Your task to perform on an android device: turn off sleep mode Image 0: 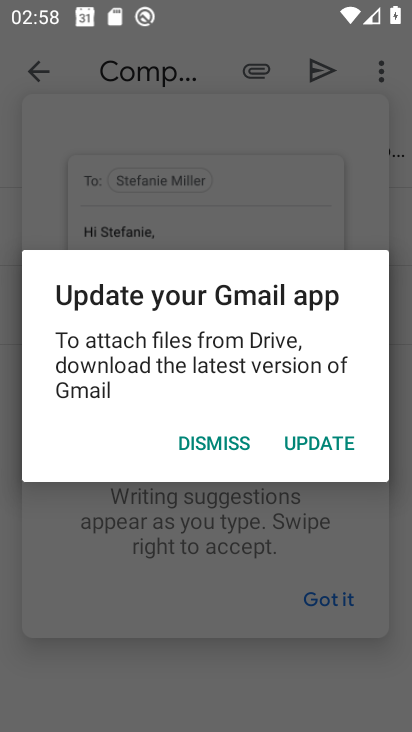
Step 0: press home button
Your task to perform on an android device: turn off sleep mode Image 1: 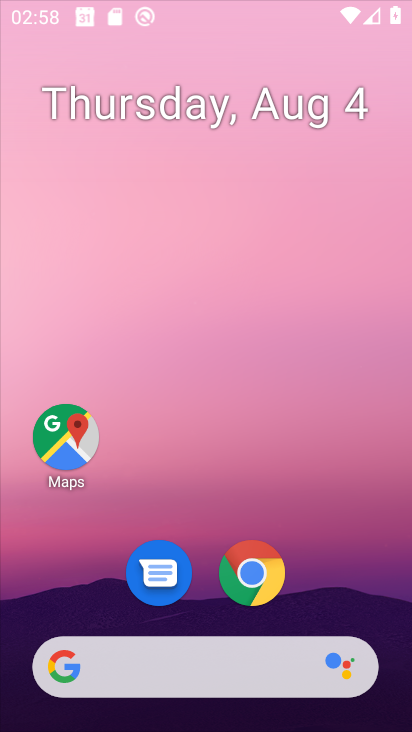
Step 1: drag from (220, 568) to (285, 165)
Your task to perform on an android device: turn off sleep mode Image 2: 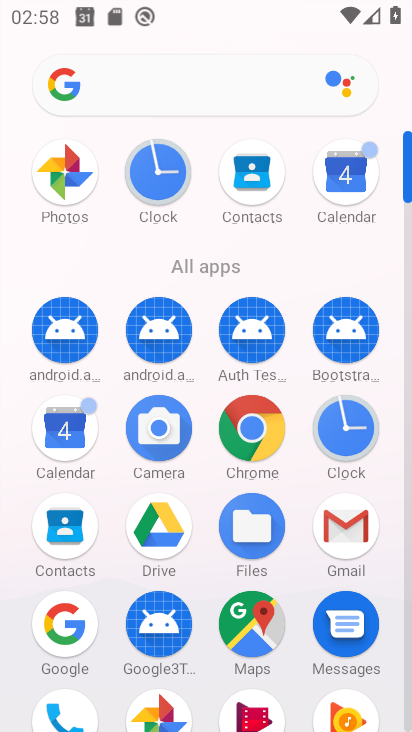
Step 2: drag from (268, 685) to (303, 143)
Your task to perform on an android device: turn off sleep mode Image 3: 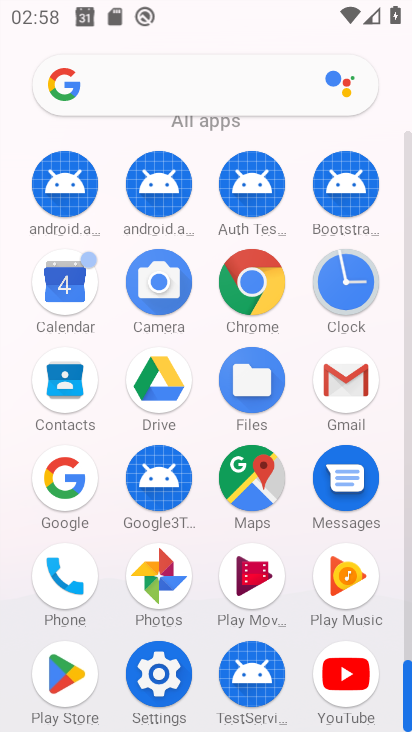
Step 3: click (141, 656)
Your task to perform on an android device: turn off sleep mode Image 4: 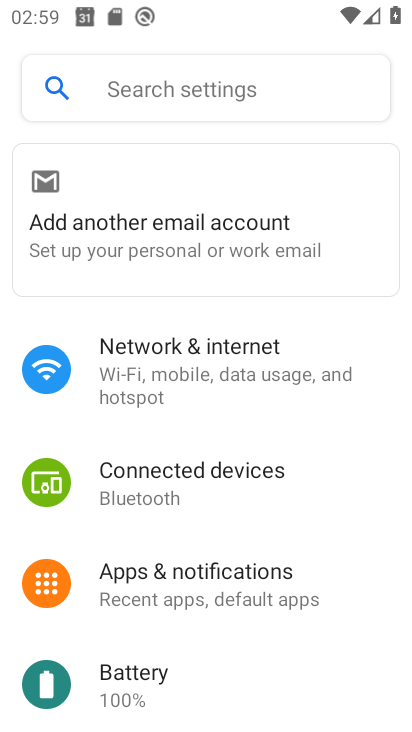
Step 4: task complete